Your task to perform on an android device: snooze an email in the gmail app Image 0: 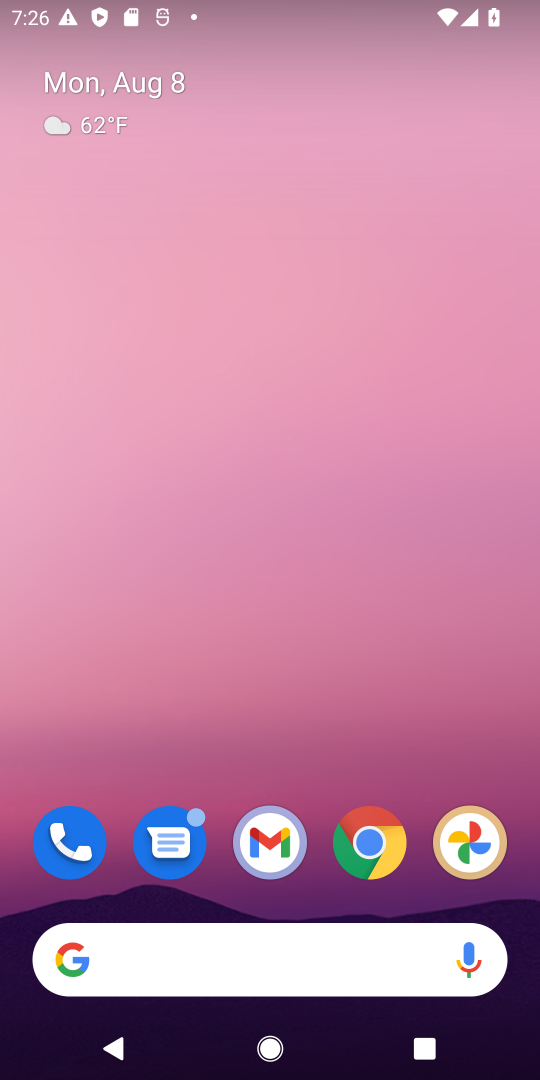
Step 0: drag from (253, 727) to (304, 5)
Your task to perform on an android device: snooze an email in the gmail app Image 1: 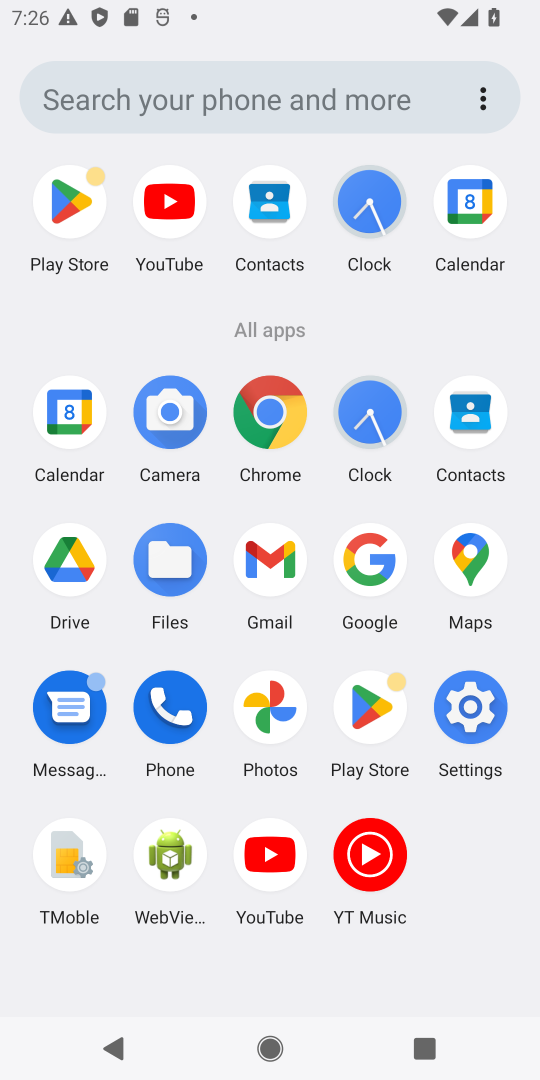
Step 1: click (276, 556)
Your task to perform on an android device: snooze an email in the gmail app Image 2: 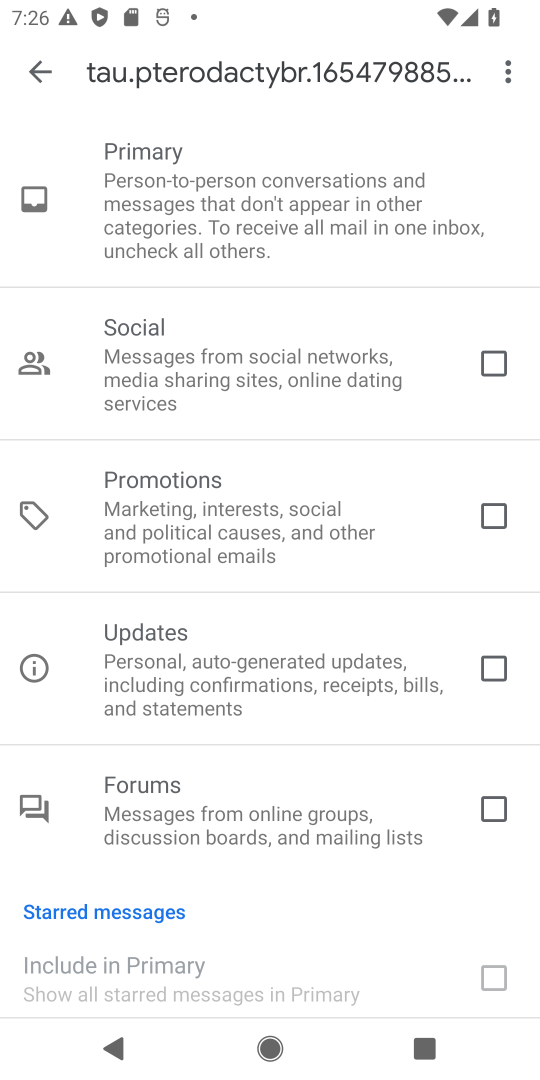
Step 2: click (31, 62)
Your task to perform on an android device: snooze an email in the gmail app Image 3: 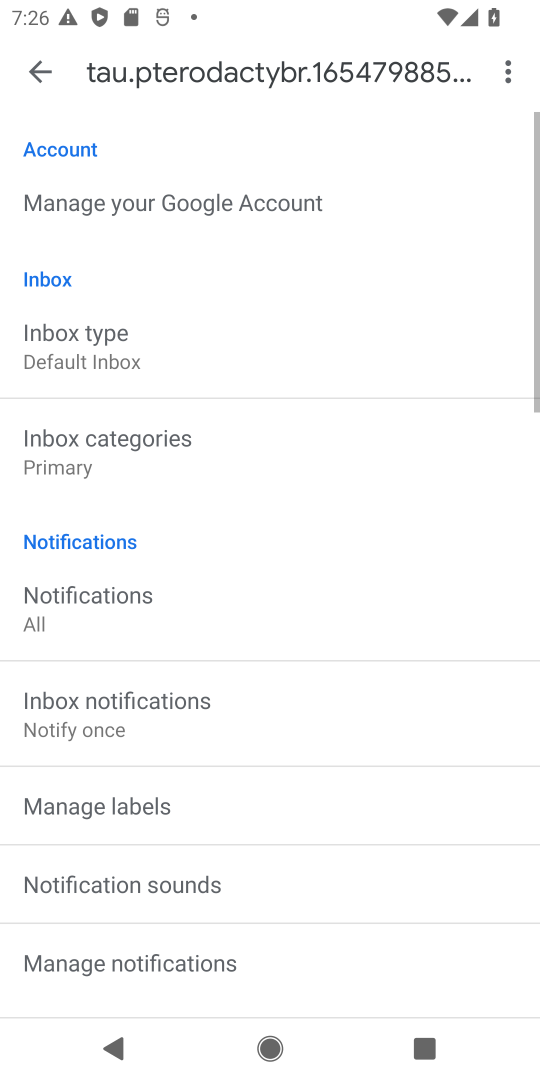
Step 3: click (31, 60)
Your task to perform on an android device: snooze an email in the gmail app Image 4: 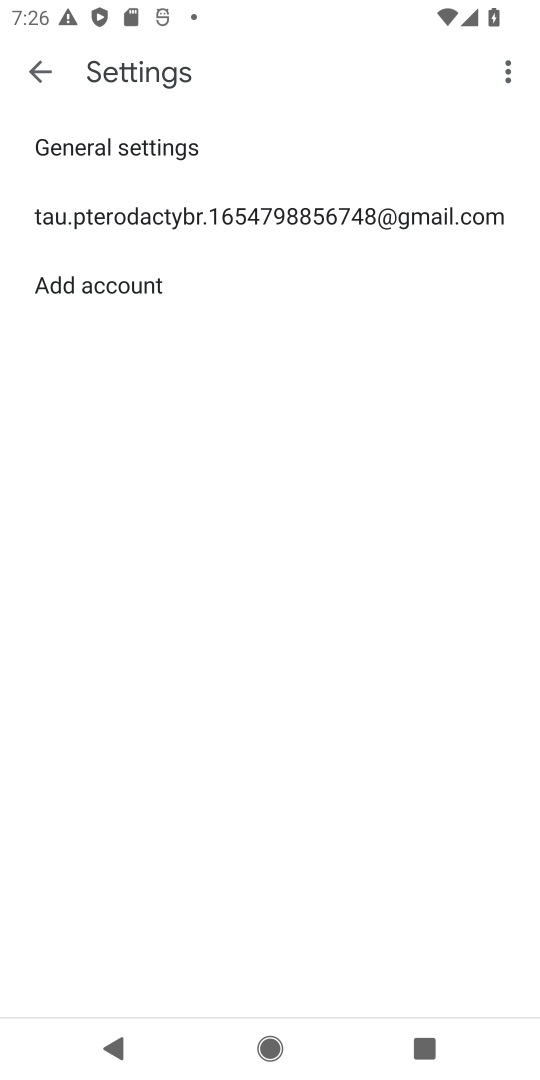
Step 4: click (31, 60)
Your task to perform on an android device: snooze an email in the gmail app Image 5: 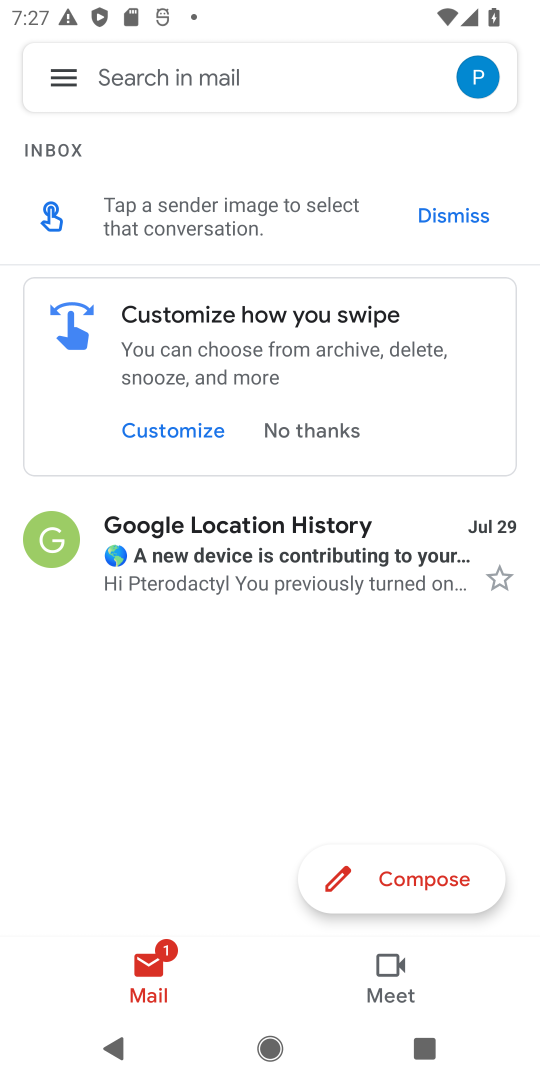
Step 5: click (287, 573)
Your task to perform on an android device: snooze an email in the gmail app Image 6: 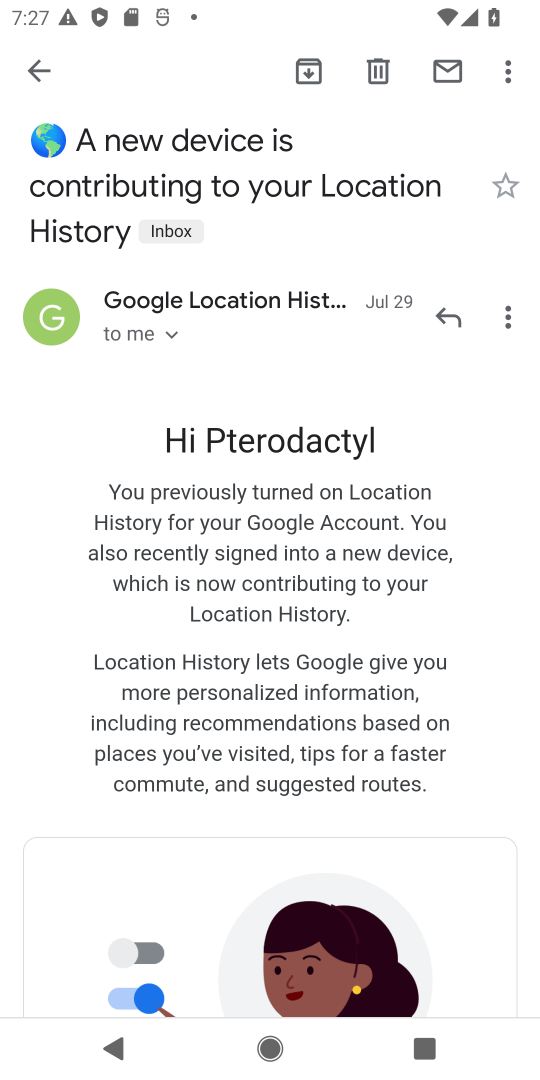
Step 6: click (504, 70)
Your task to perform on an android device: snooze an email in the gmail app Image 7: 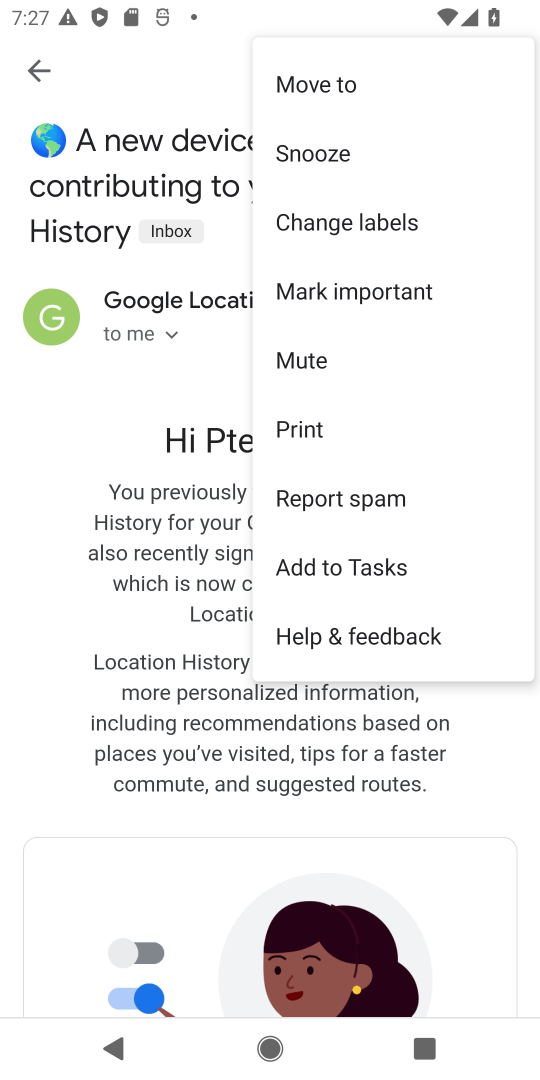
Step 7: click (360, 161)
Your task to perform on an android device: snooze an email in the gmail app Image 8: 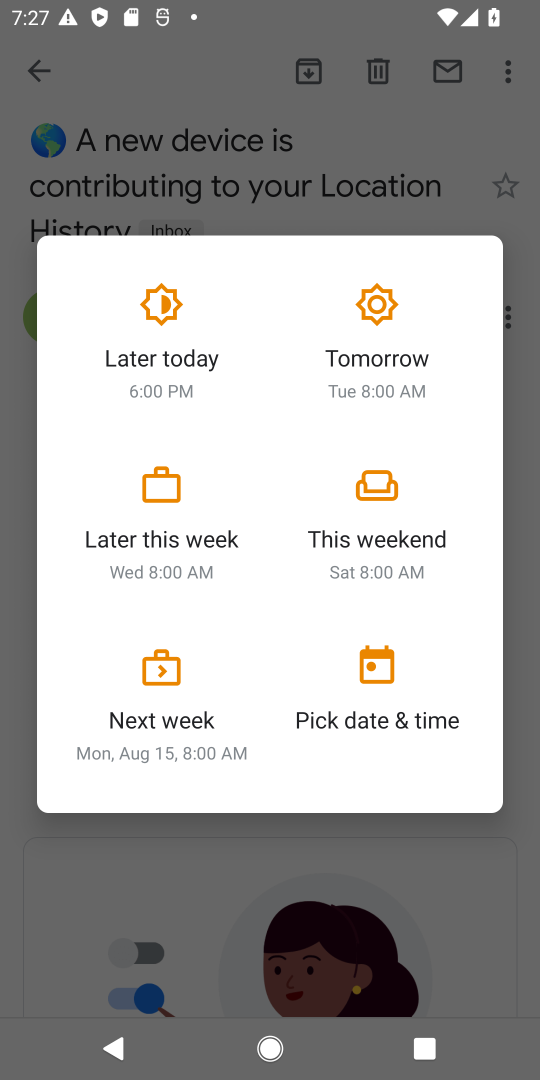
Step 8: click (385, 349)
Your task to perform on an android device: snooze an email in the gmail app Image 9: 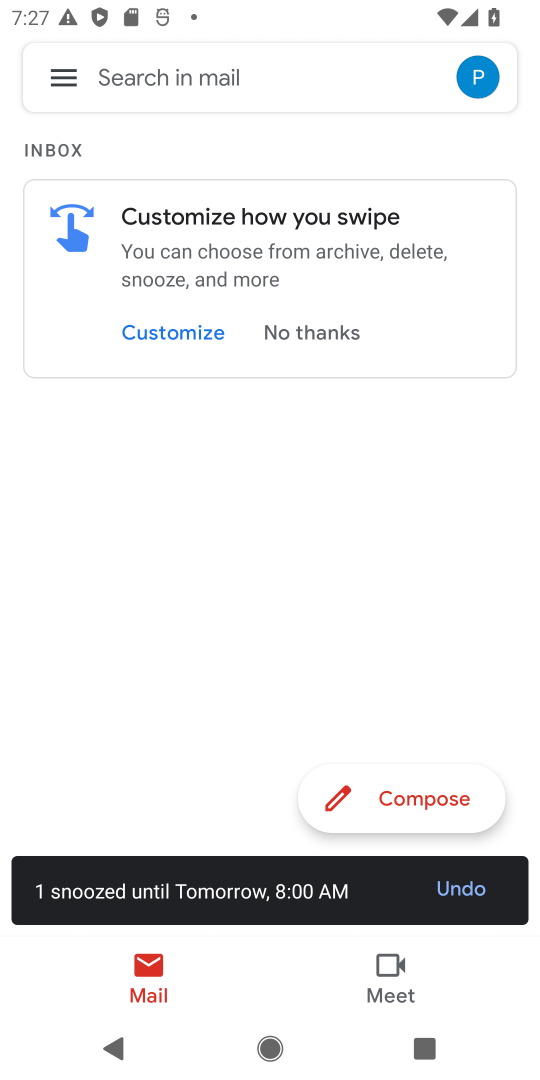
Step 9: task complete